Your task to perform on an android device: Turn on the flashlight Image 0: 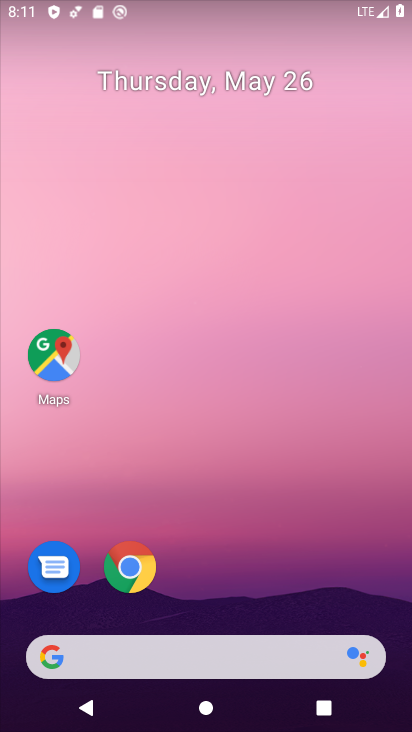
Step 0: drag from (253, 46) to (217, 717)
Your task to perform on an android device: Turn on the flashlight Image 1: 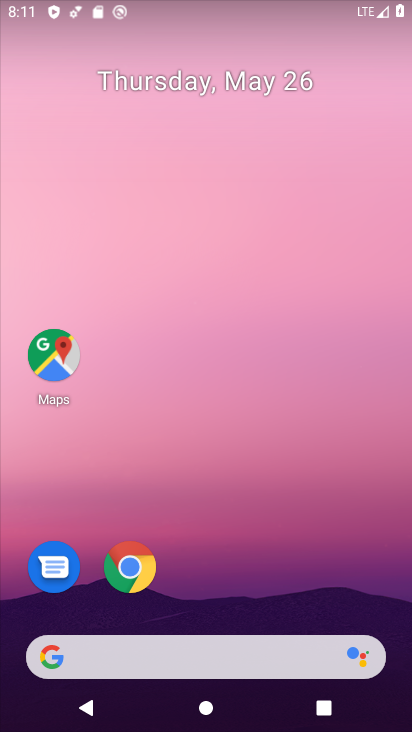
Step 1: task complete